Your task to perform on an android device: turn off priority inbox in the gmail app Image 0: 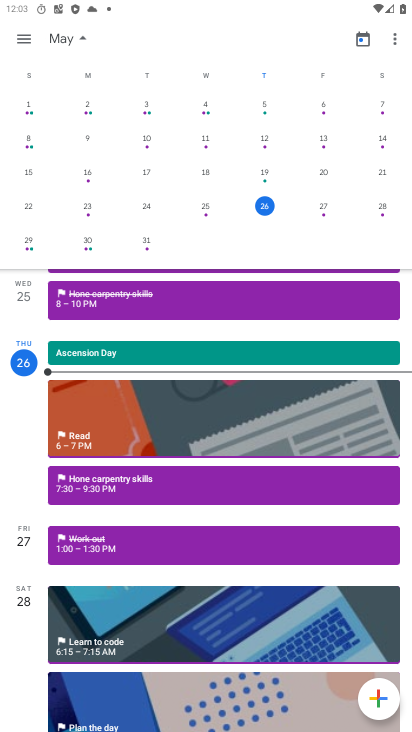
Step 0: press home button
Your task to perform on an android device: turn off priority inbox in the gmail app Image 1: 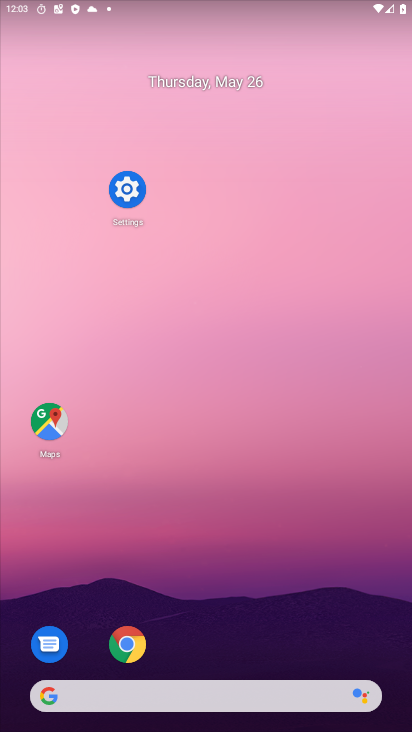
Step 1: drag from (281, 558) to (283, 13)
Your task to perform on an android device: turn off priority inbox in the gmail app Image 2: 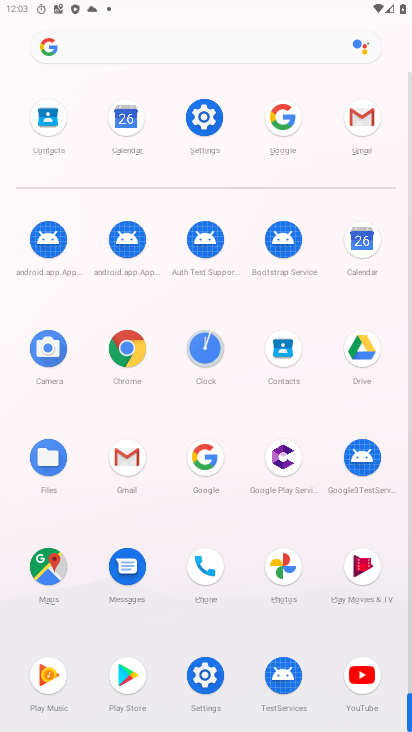
Step 2: click (361, 113)
Your task to perform on an android device: turn off priority inbox in the gmail app Image 3: 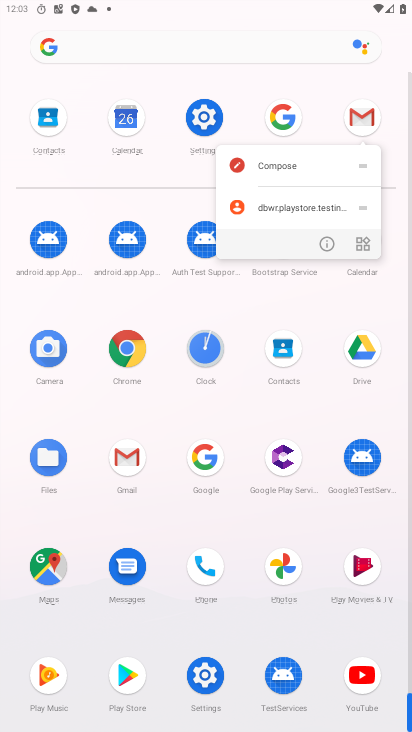
Step 3: click (359, 120)
Your task to perform on an android device: turn off priority inbox in the gmail app Image 4: 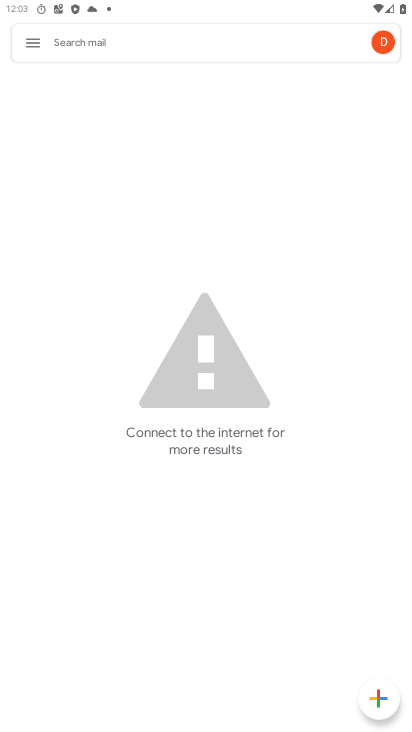
Step 4: click (359, 120)
Your task to perform on an android device: turn off priority inbox in the gmail app Image 5: 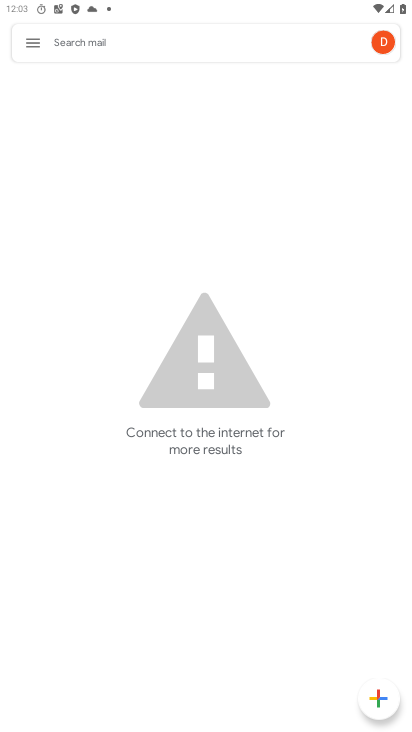
Step 5: click (16, 46)
Your task to perform on an android device: turn off priority inbox in the gmail app Image 6: 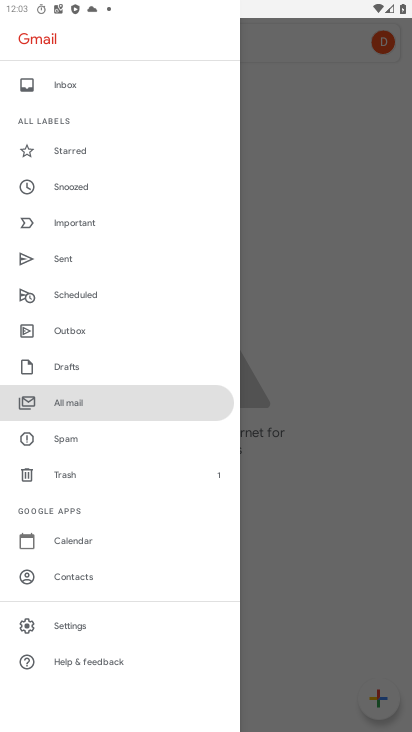
Step 6: drag from (79, 659) to (101, 475)
Your task to perform on an android device: turn off priority inbox in the gmail app Image 7: 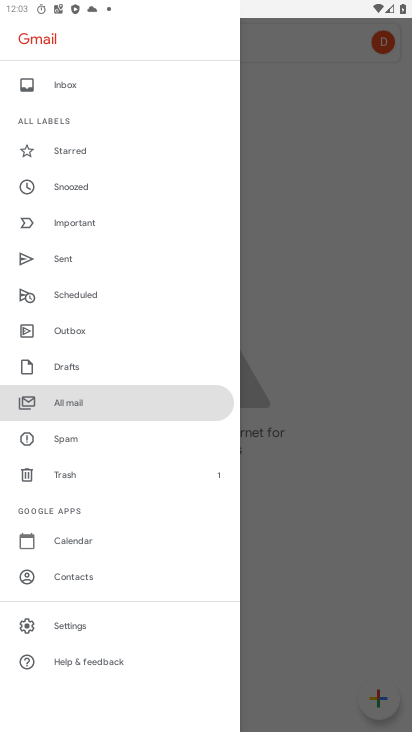
Step 7: click (53, 623)
Your task to perform on an android device: turn off priority inbox in the gmail app Image 8: 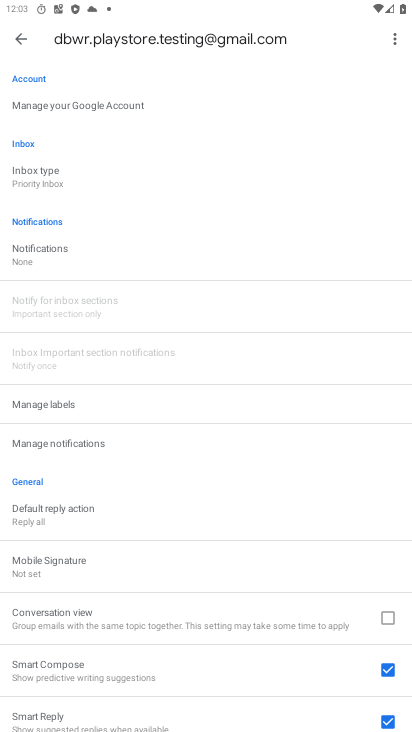
Step 8: click (36, 174)
Your task to perform on an android device: turn off priority inbox in the gmail app Image 9: 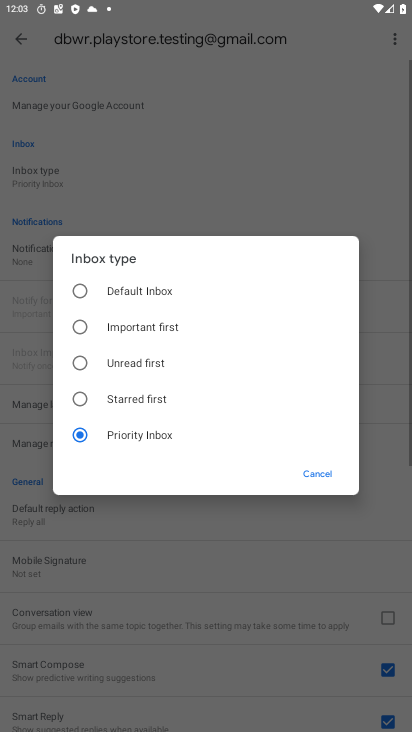
Step 9: click (79, 301)
Your task to perform on an android device: turn off priority inbox in the gmail app Image 10: 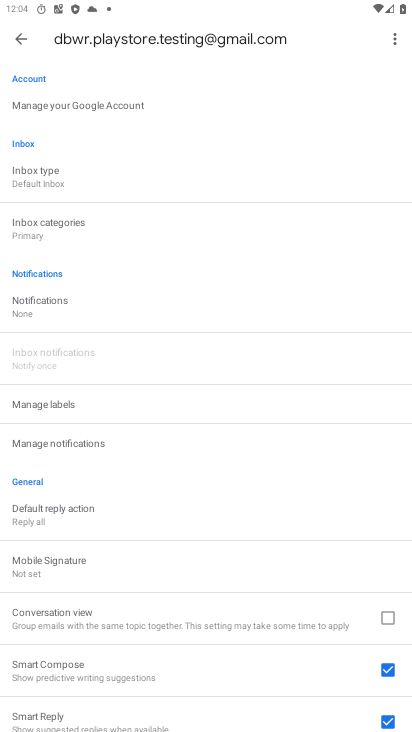
Step 10: task complete